Your task to perform on an android device: Clear the shopping cart on newegg. Add apple airpods pro to the cart on newegg, then select checkout. Image 0: 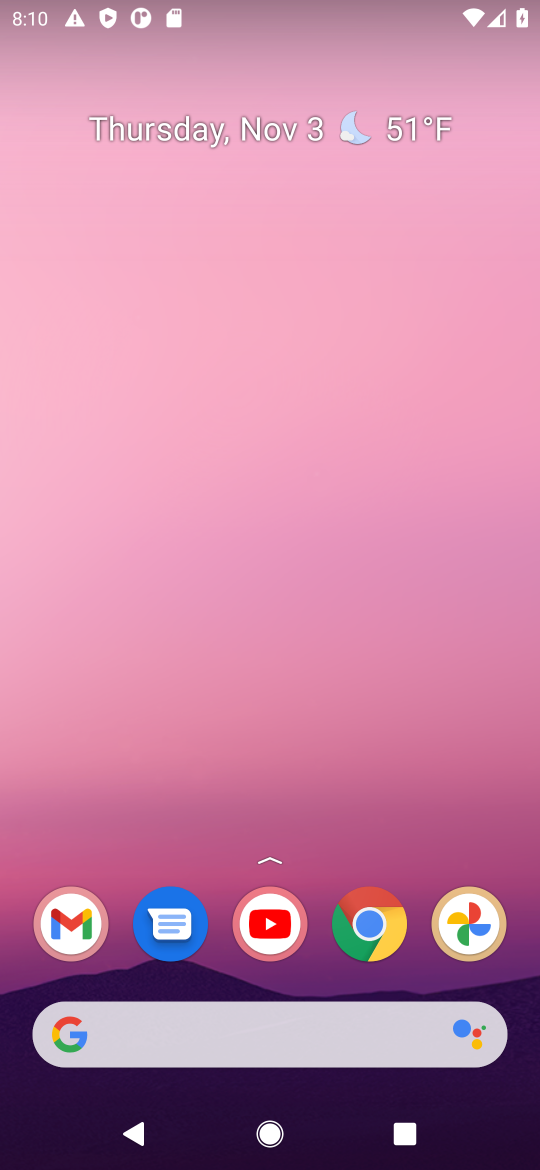
Step 0: drag from (142, 997) to (459, 16)
Your task to perform on an android device: Clear the shopping cart on newegg. Add apple airpods pro to the cart on newegg, then select checkout. Image 1: 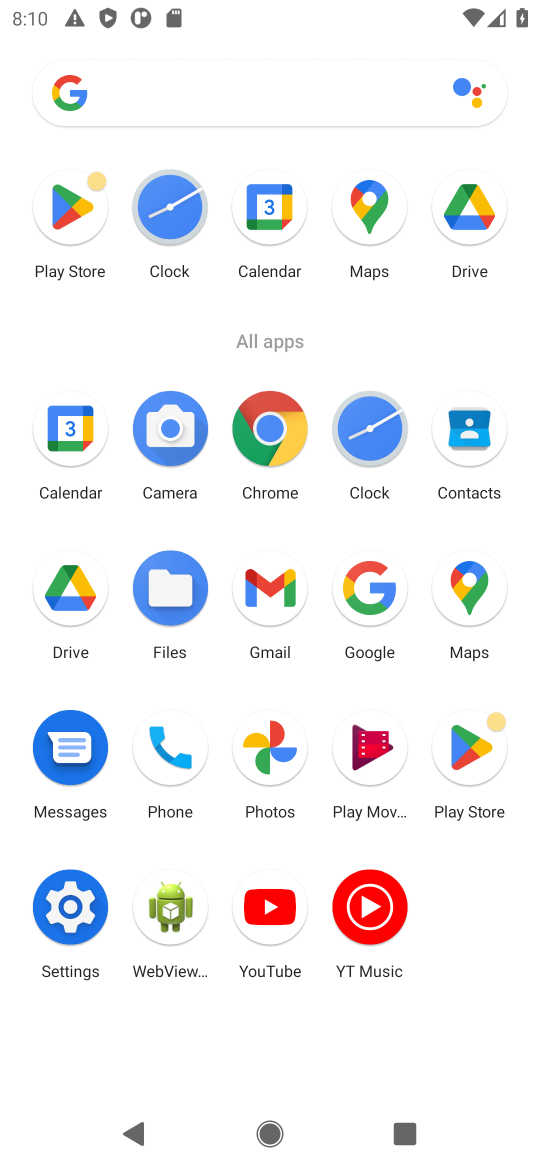
Step 1: click (354, 583)
Your task to perform on an android device: Clear the shopping cart on newegg. Add apple airpods pro to the cart on newegg, then select checkout. Image 2: 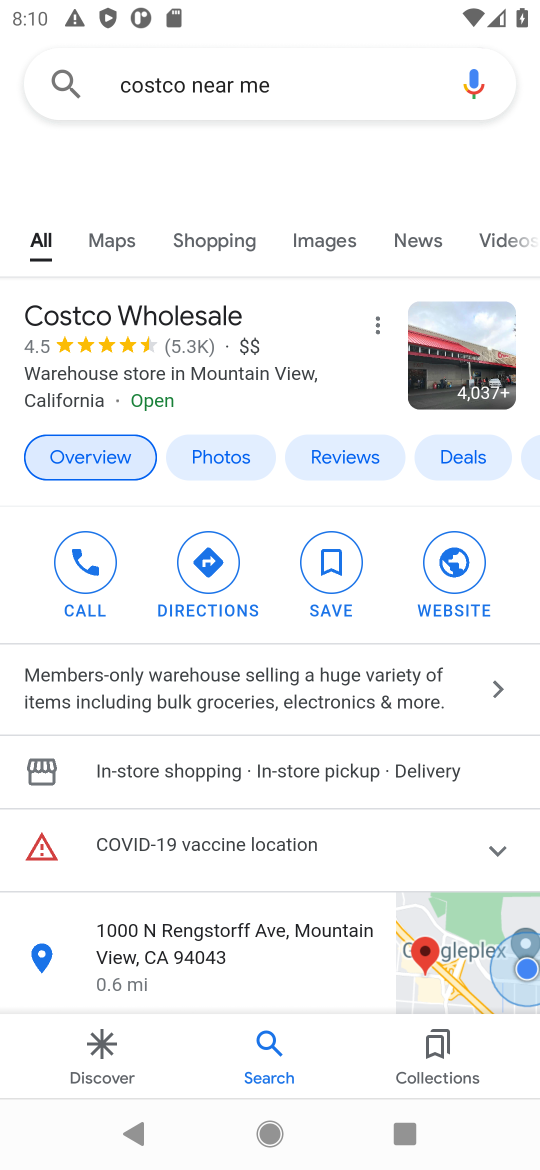
Step 2: click (295, 88)
Your task to perform on an android device: Clear the shopping cart on newegg. Add apple airpods pro to the cart on newegg, then select checkout. Image 3: 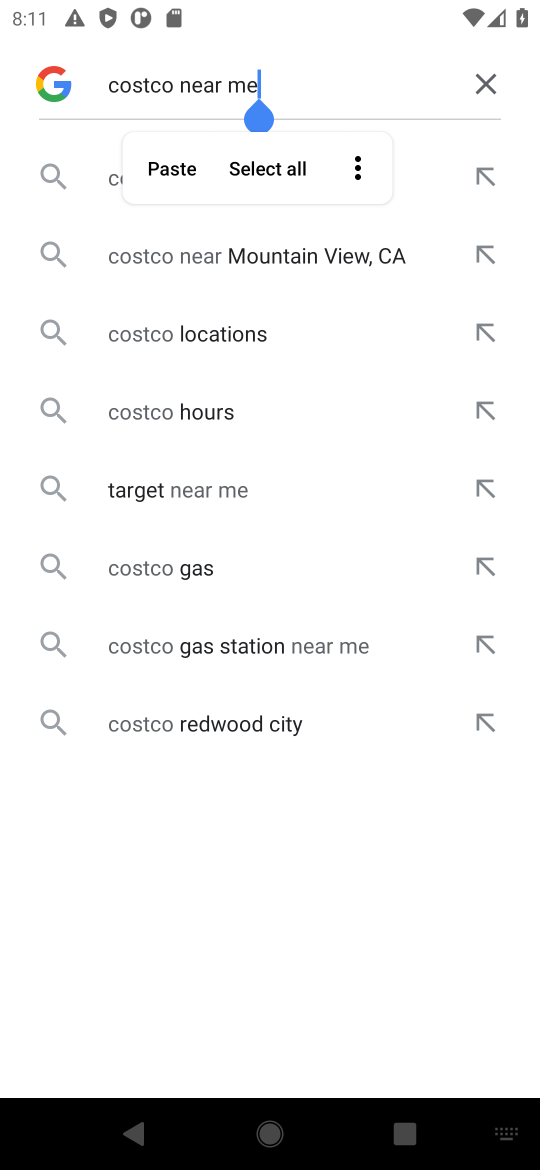
Step 3: click (477, 80)
Your task to perform on an android device: Clear the shopping cart on newegg. Add apple airpods pro to the cart on newegg, then select checkout. Image 4: 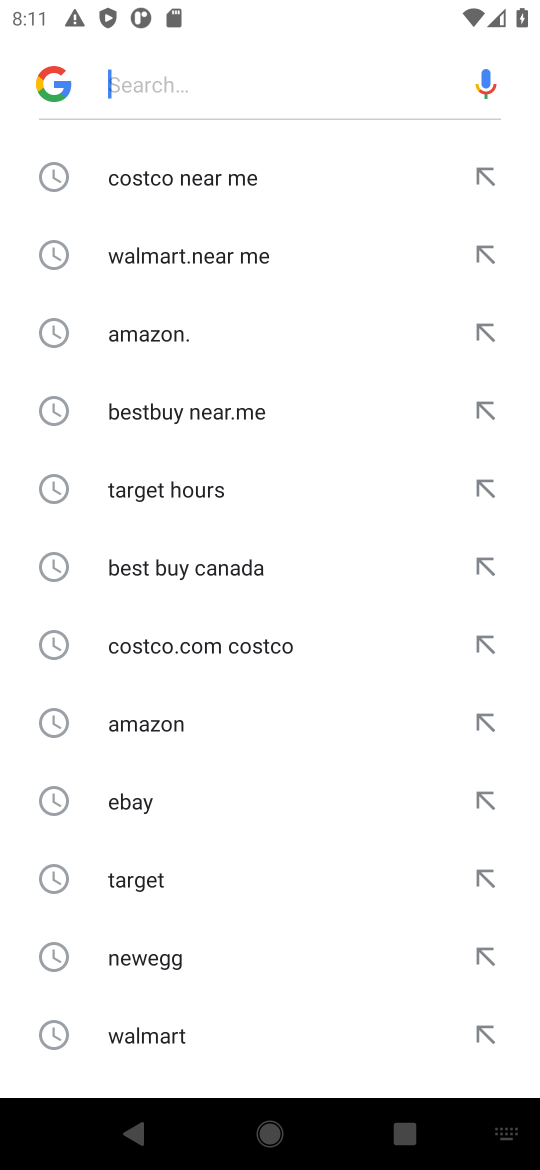
Step 4: click (198, 87)
Your task to perform on an android device: Clear the shopping cart on newegg. Add apple airpods pro to the cart on newegg, then select checkout. Image 5: 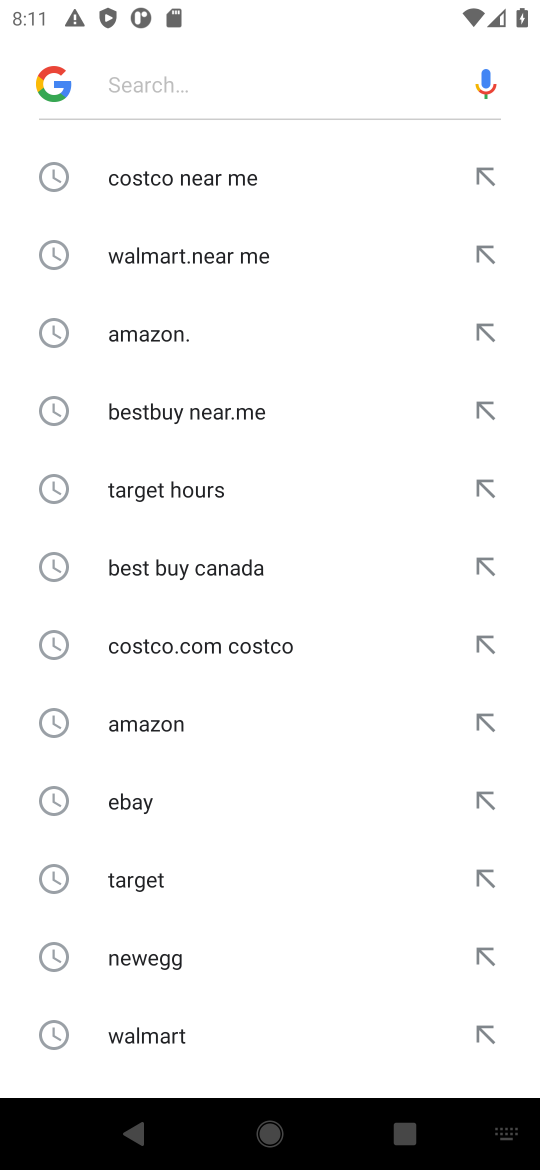
Step 5: type "newegg "
Your task to perform on an android device: Clear the shopping cart on newegg. Add apple airpods pro to the cart on newegg, then select checkout. Image 6: 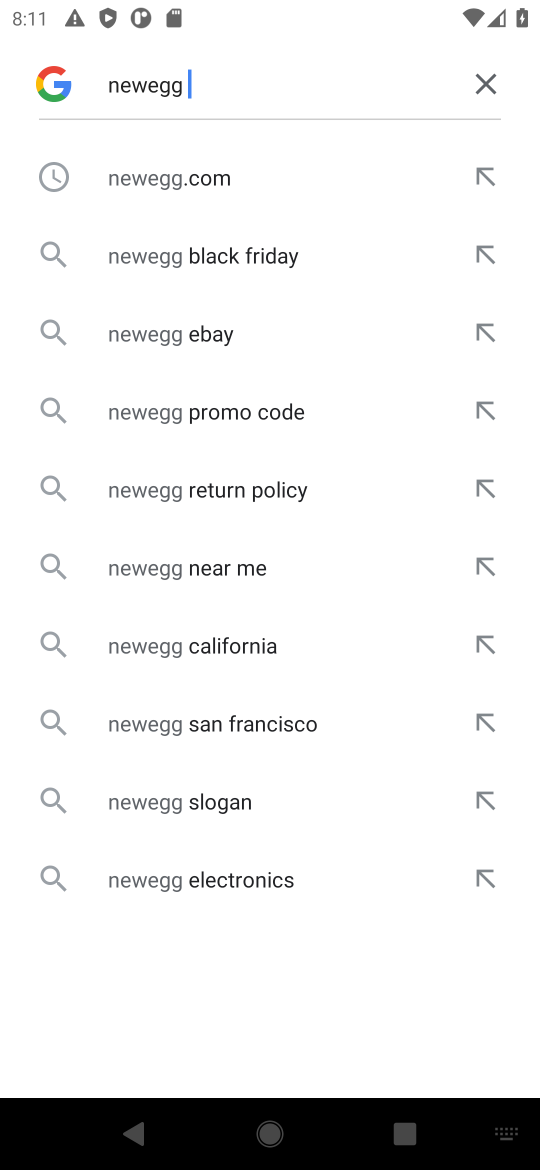
Step 6: click (153, 179)
Your task to perform on an android device: Clear the shopping cart on newegg. Add apple airpods pro to the cart on newegg, then select checkout. Image 7: 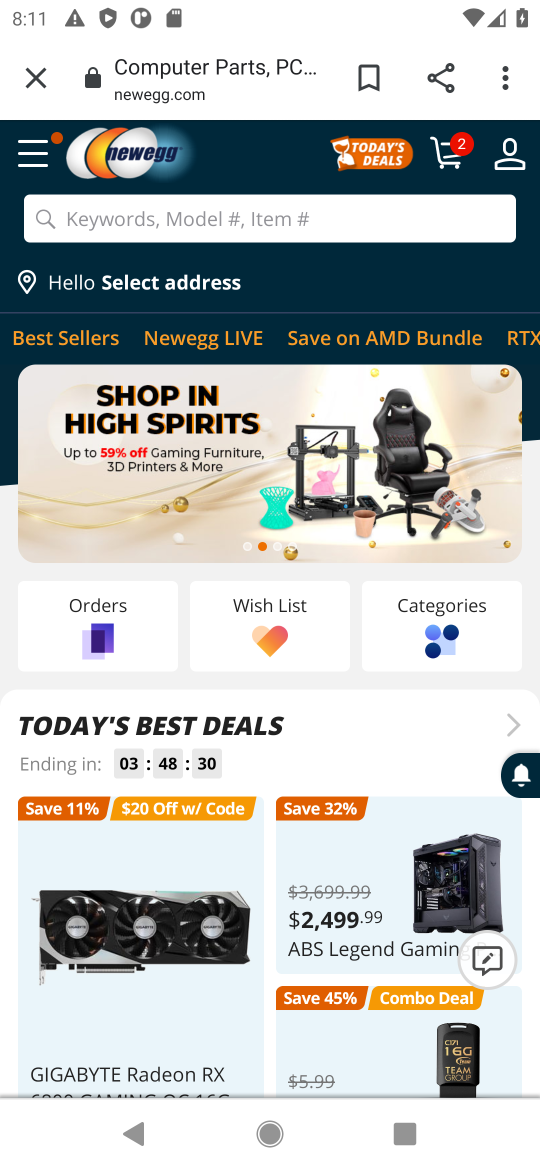
Step 7: click (138, 205)
Your task to perform on an android device: Clear the shopping cart on newegg. Add apple airpods pro to the cart on newegg, then select checkout. Image 8: 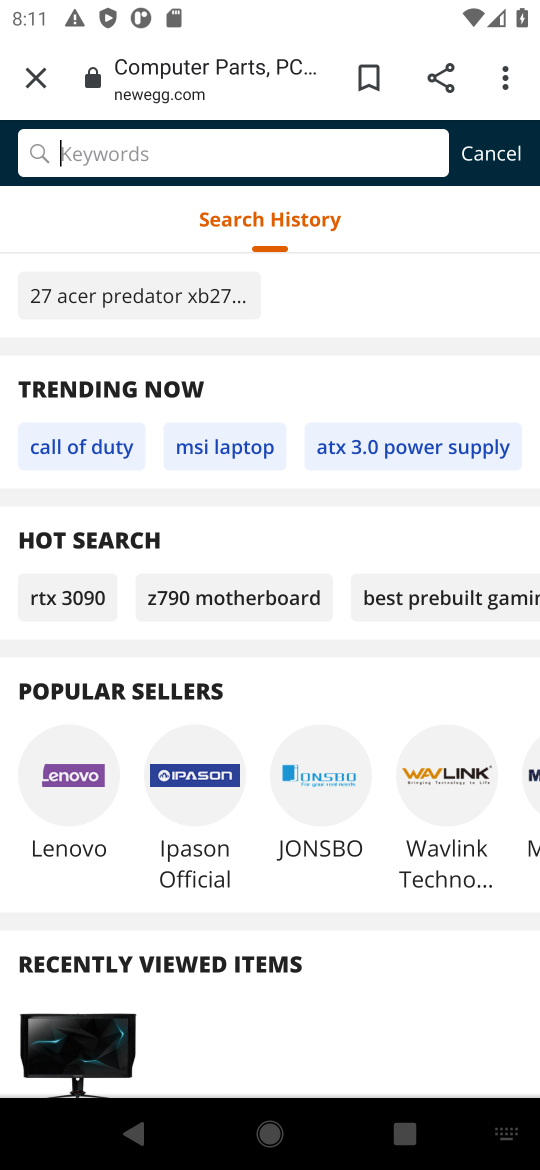
Step 8: click (163, 141)
Your task to perform on an android device: Clear the shopping cart on newegg. Add apple airpods pro to the cart on newegg, then select checkout. Image 9: 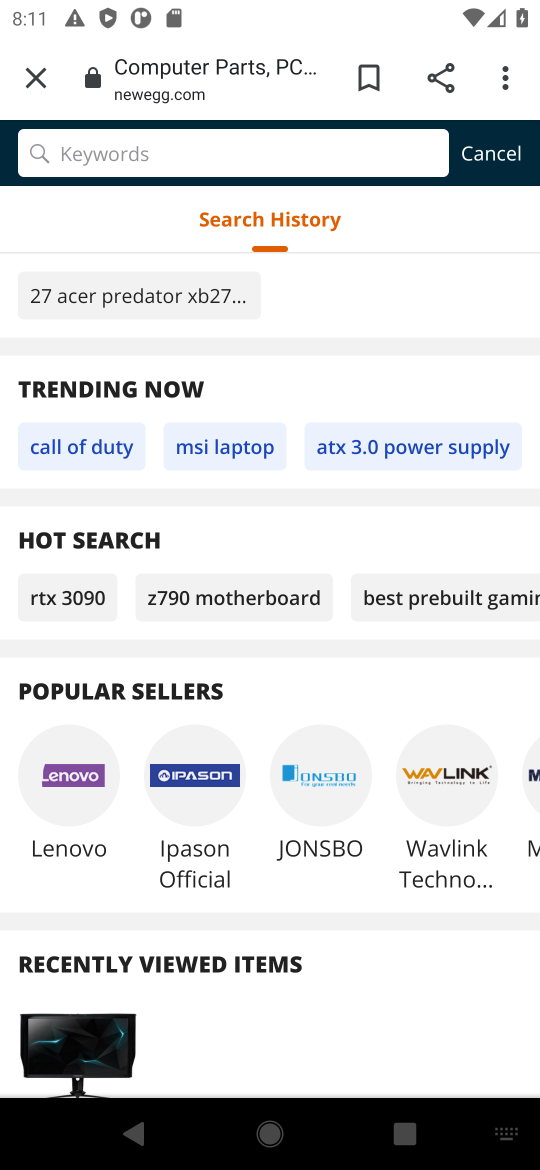
Step 9: type "airpods "
Your task to perform on an android device: Clear the shopping cart on newegg. Add apple airpods pro to the cart on newegg, then select checkout. Image 10: 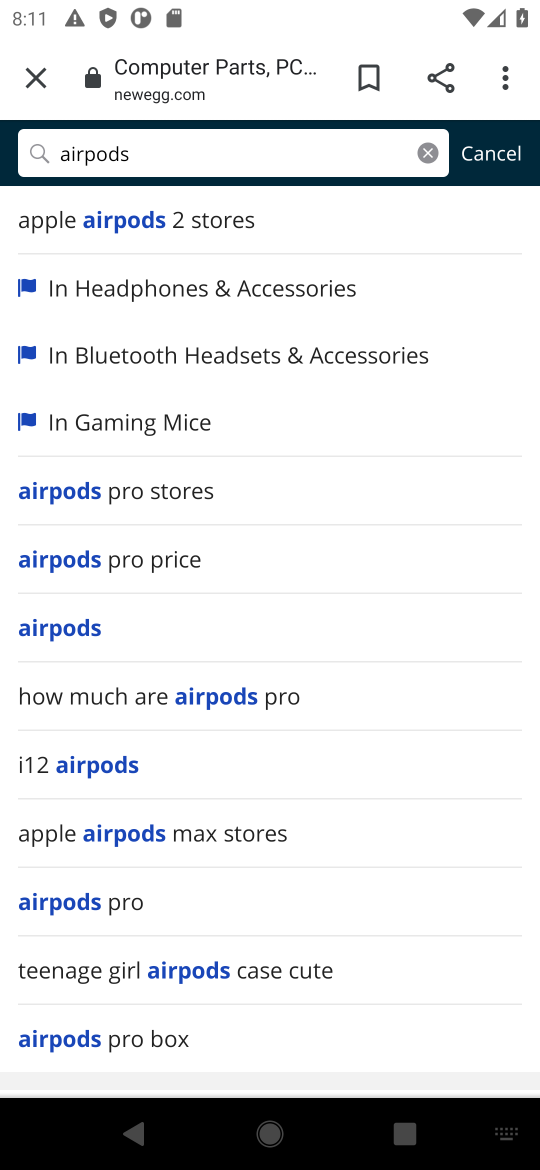
Step 10: click (141, 209)
Your task to perform on an android device: Clear the shopping cart on newegg. Add apple airpods pro to the cart on newegg, then select checkout. Image 11: 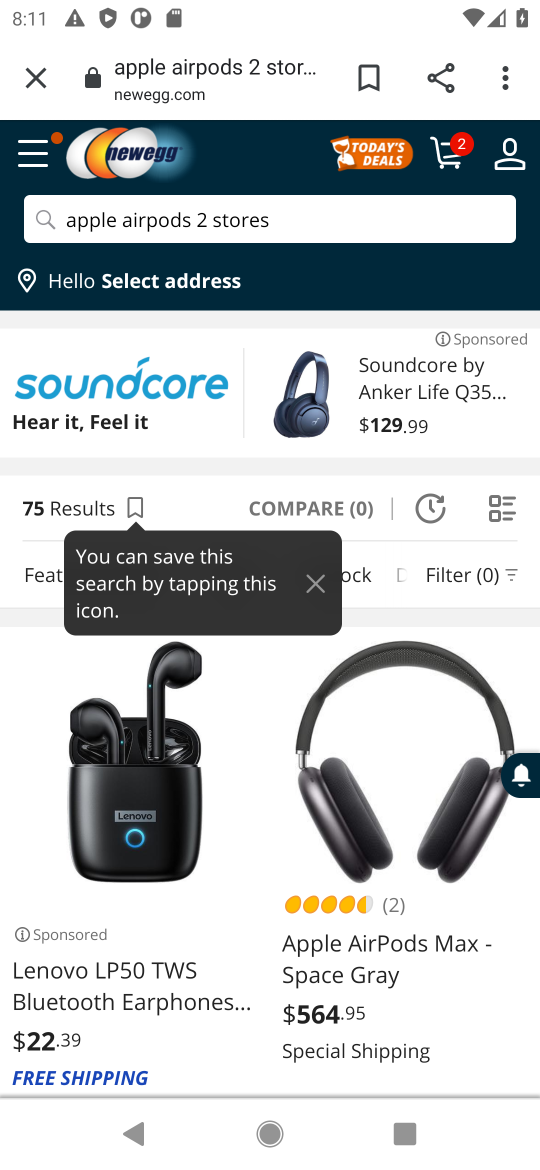
Step 11: click (324, 912)
Your task to perform on an android device: Clear the shopping cart on newegg. Add apple airpods pro to the cart on newegg, then select checkout. Image 12: 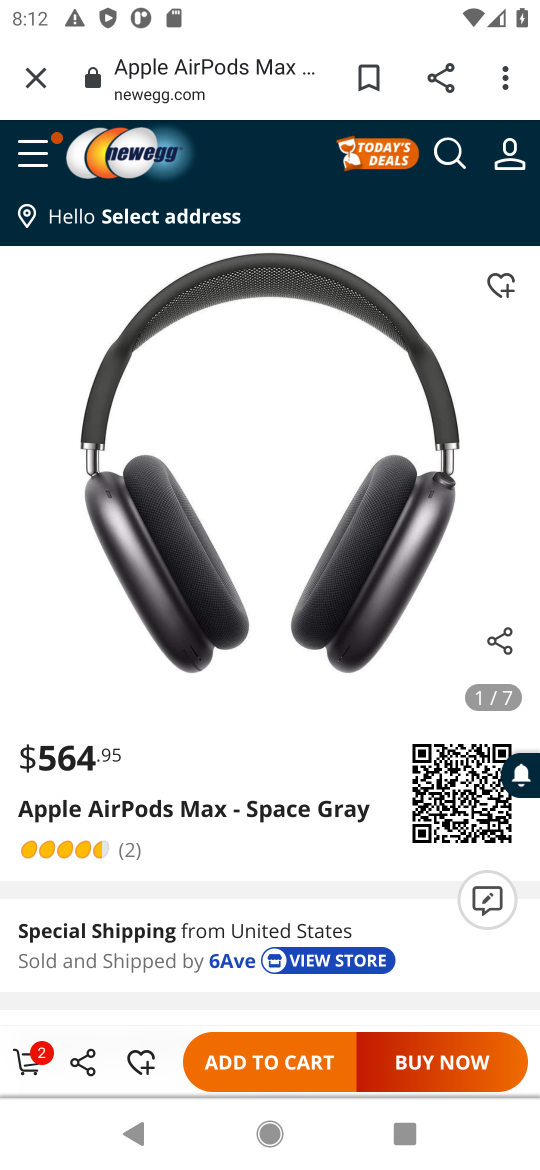
Step 12: click (229, 1048)
Your task to perform on an android device: Clear the shopping cart on newegg. Add apple airpods pro to the cart on newegg, then select checkout. Image 13: 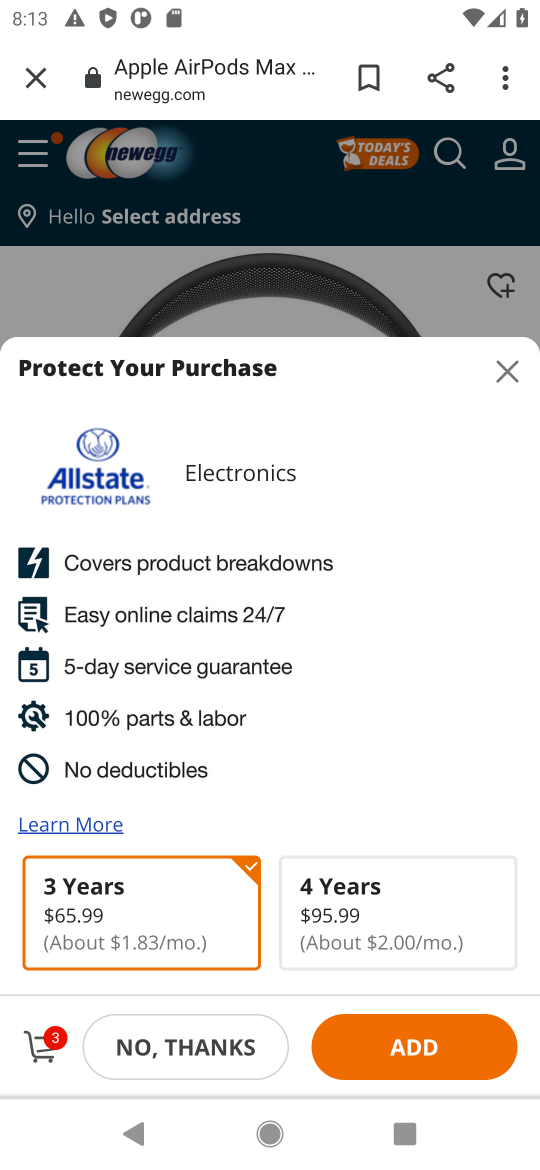
Step 13: click (496, 378)
Your task to perform on an android device: Clear the shopping cart on newegg. Add apple airpods pro to the cart on newegg, then select checkout. Image 14: 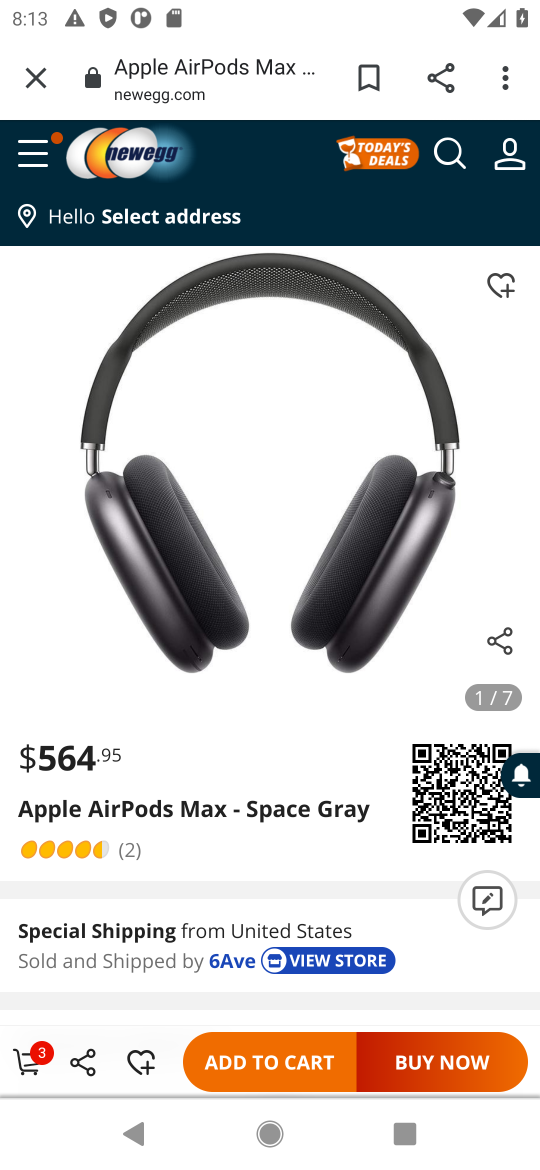
Step 14: click (276, 1053)
Your task to perform on an android device: Clear the shopping cart on newegg. Add apple airpods pro to the cart on newegg, then select checkout. Image 15: 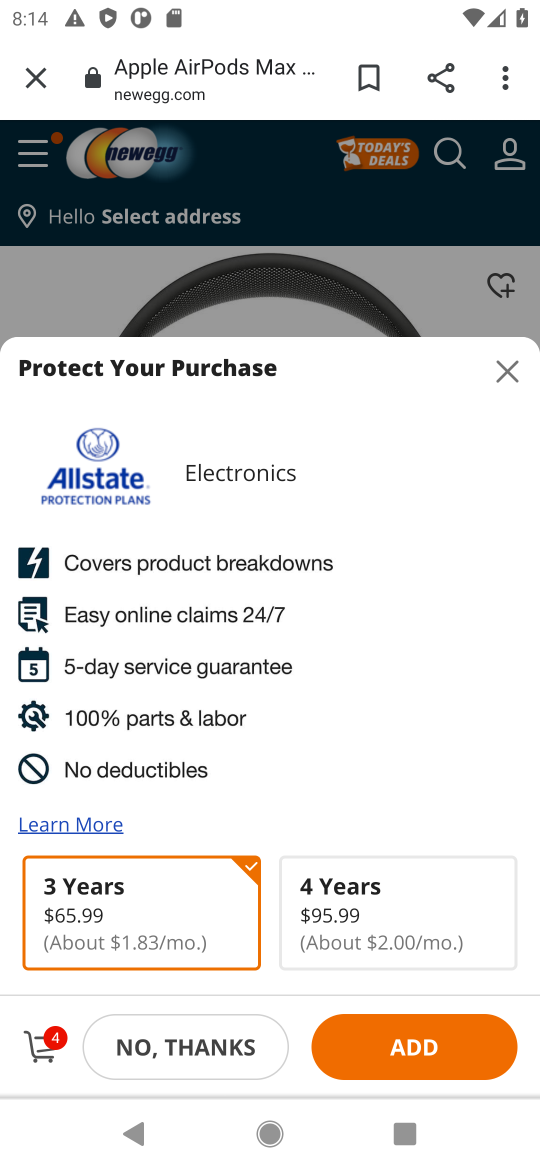
Step 15: click (400, 1031)
Your task to perform on an android device: Clear the shopping cart on newegg. Add apple airpods pro to the cart on newegg, then select checkout. Image 16: 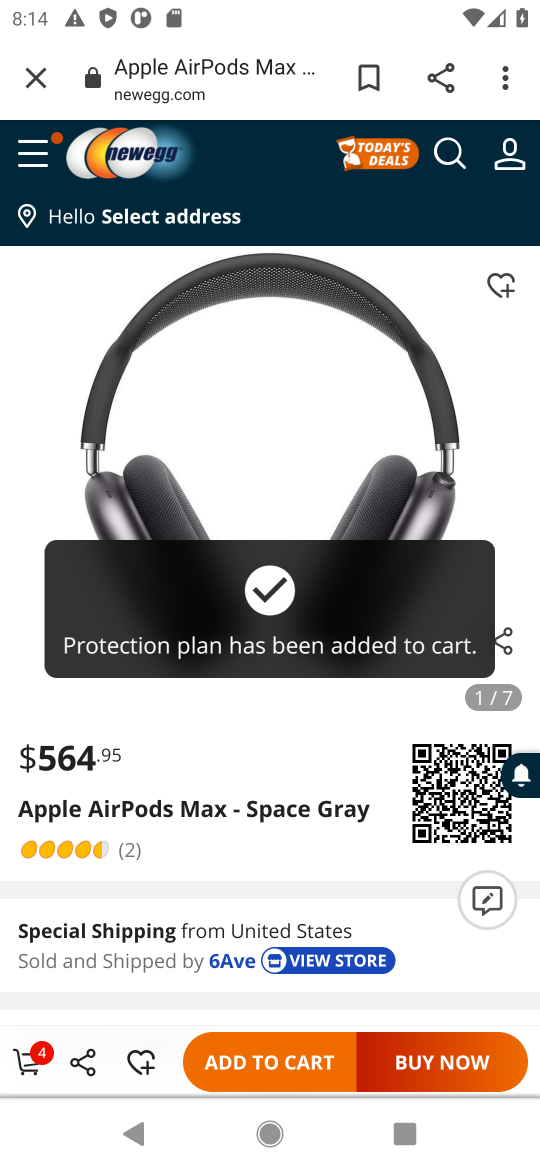
Step 16: task complete